Your task to perform on an android device: turn on javascript in the chrome app Image 0: 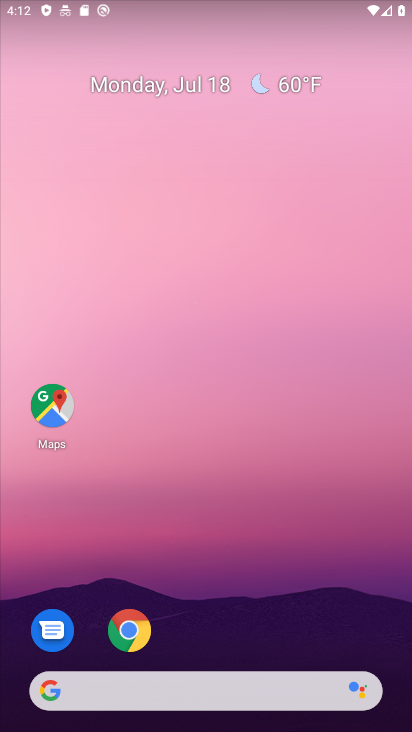
Step 0: drag from (239, 610) to (98, 41)
Your task to perform on an android device: turn on javascript in the chrome app Image 1: 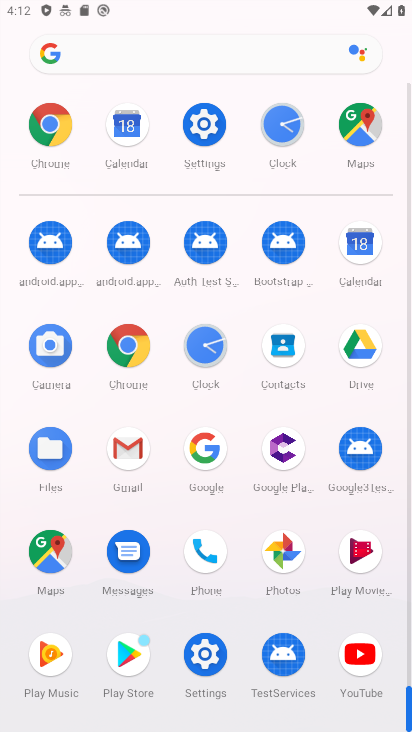
Step 1: click (50, 120)
Your task to perform on an android device: turn on javascript in the chrome app Image 2: 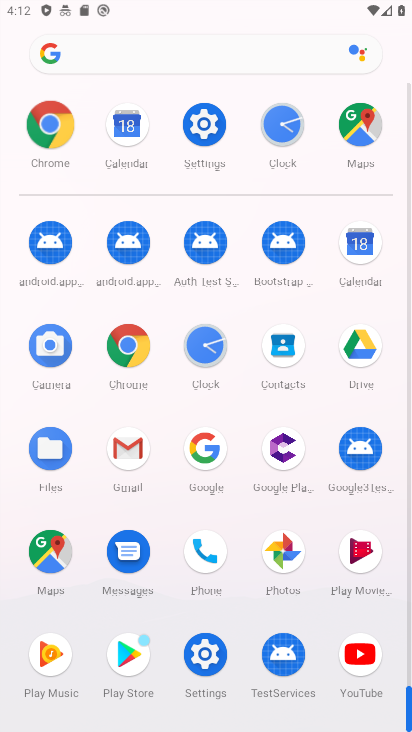
Step 2: click (38, 118)
Your task to perform on an android device: turn on javascript in the chrome app Image 3: 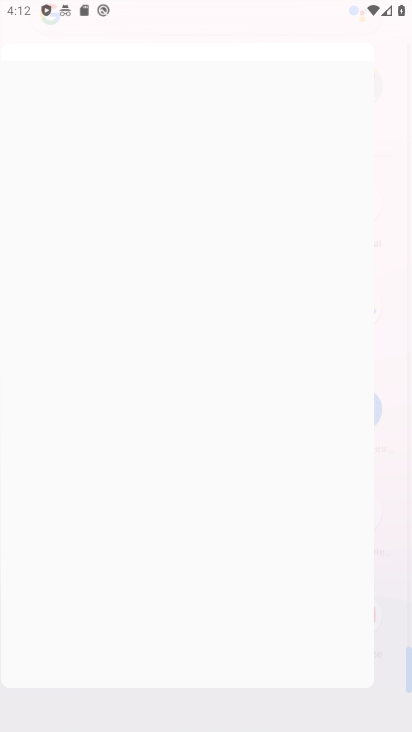
Step 3: click (36, 112)
Your task to perform on an android device: turn on javascript in the chrome app Image 4: 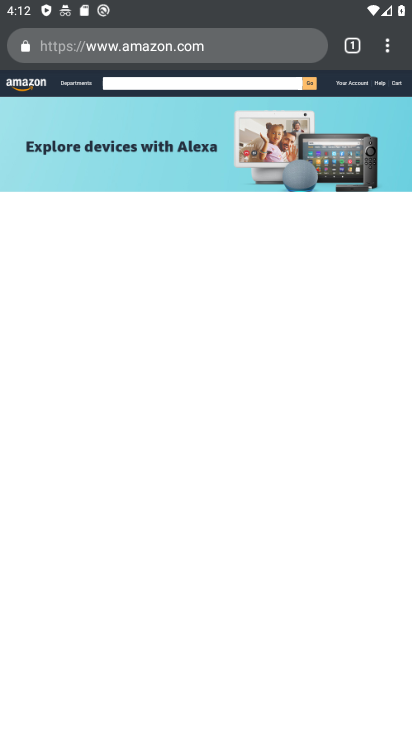
Step 4: drag from (385, 51) to (215, 422)
Your task to perform on an android device: turn on javascript in the chrome app Image 5: 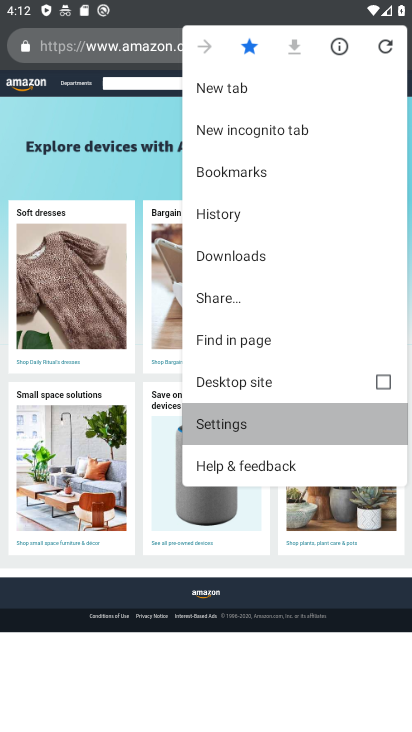
Step 5: click (221, 425)
Your task to perform on an android device: turn on javascript in the chrome app Image 6: 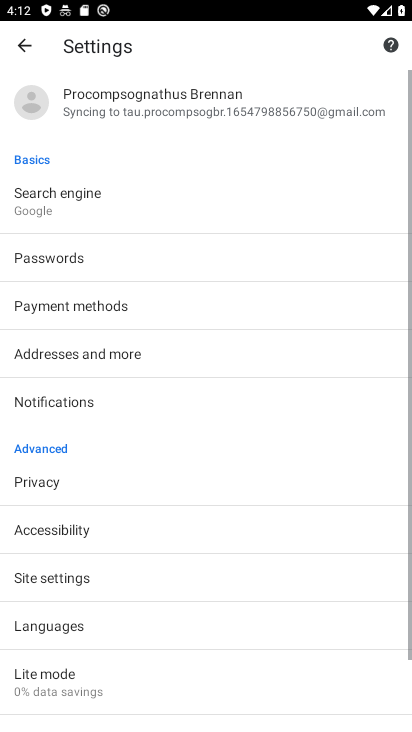
Step 6: drag from (163, 592) to (114, 148)
Your task to perform on an android device: turn on javascript in the chrome app Image 7: 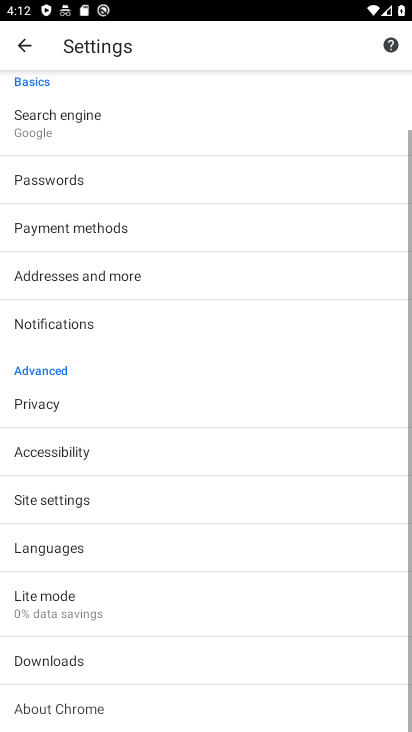
Step 7: drag from (97, 555) to (79, 431)
Your task to perform on an android device: turn on javascript in the chrome app Image 8: 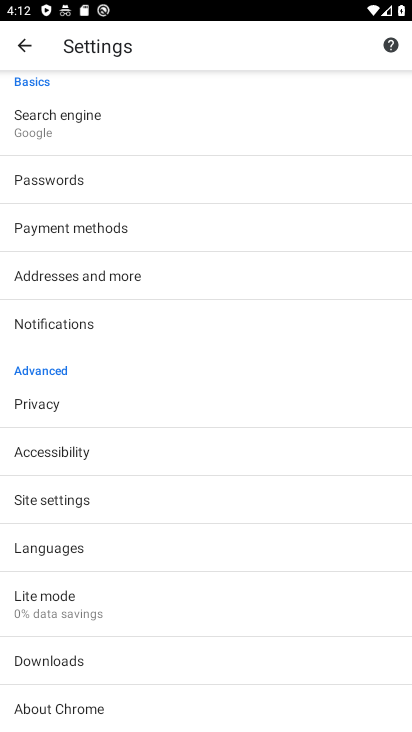
Step 8: click (44, 499)
Your task to perform on an android device: turn on javascript in the chrome app Image 9: 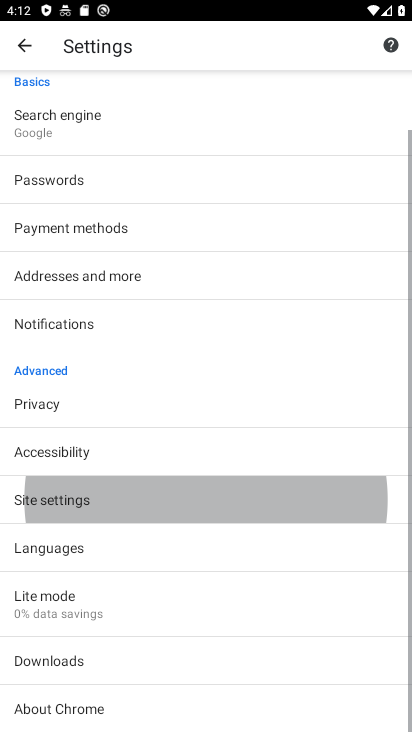
Step 9: click (44, 499)
Your task to perform on an android device: turn on javascript in the chrome app Image 10: 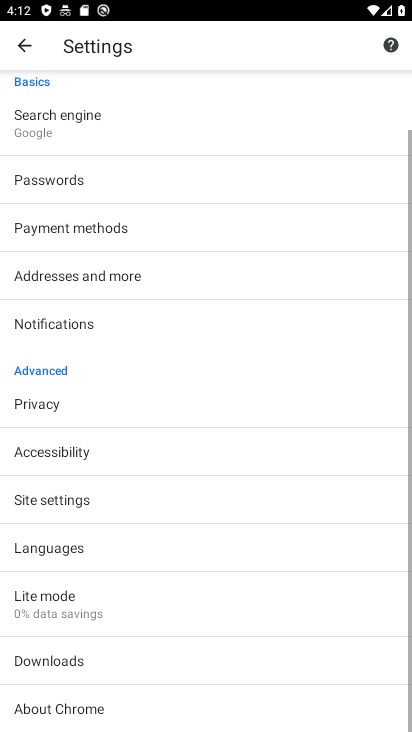
Step 10: click (44, 499)
Your task to perform on an android device: turn on javascript in the chrome app Image 11: 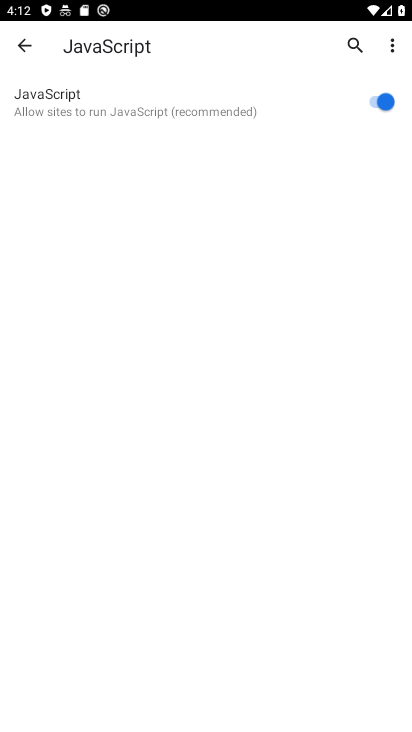
Step 11: task complete